Your task to perform on an android device: Show me popular games on the Play Store Image 0: 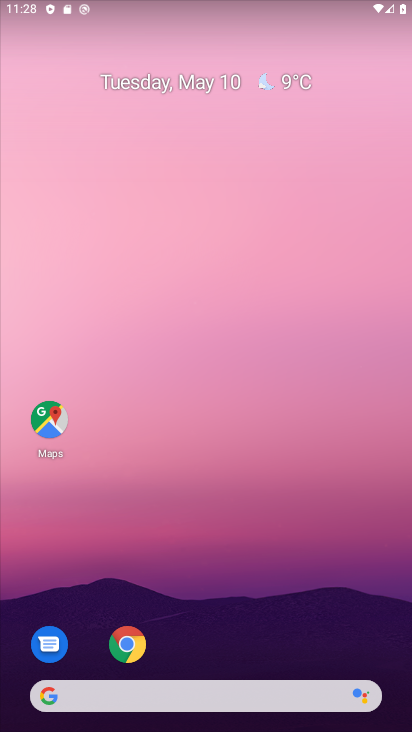
Step 0: drag from (191, 650) to (246, 135)
Your task to perform on an android device: Show me popular games on the Play Store Image 1: 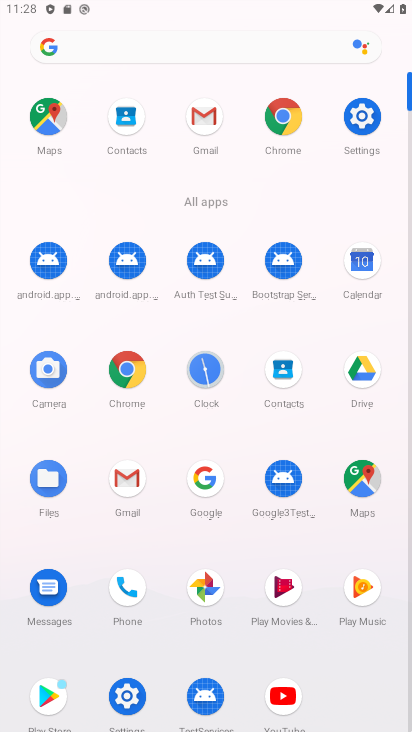
Step 1: click (46, 681)
Your task to perform on an android device: Show me popular games on the Play Store Image 2: 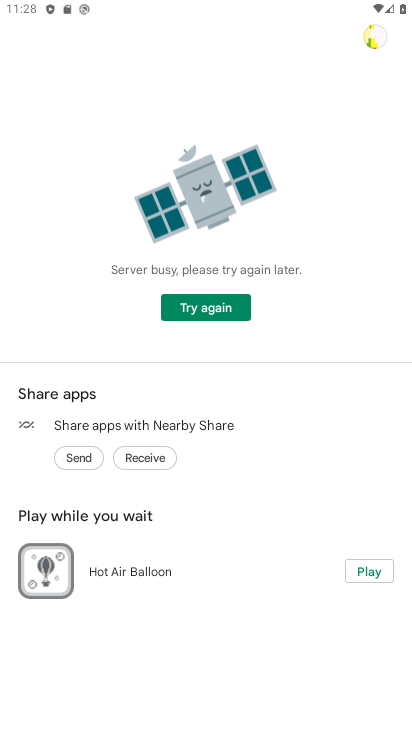
Step 2: click (201, 302)
Your task to perform on an android device: Show me popular games on the Play Store Image 3: 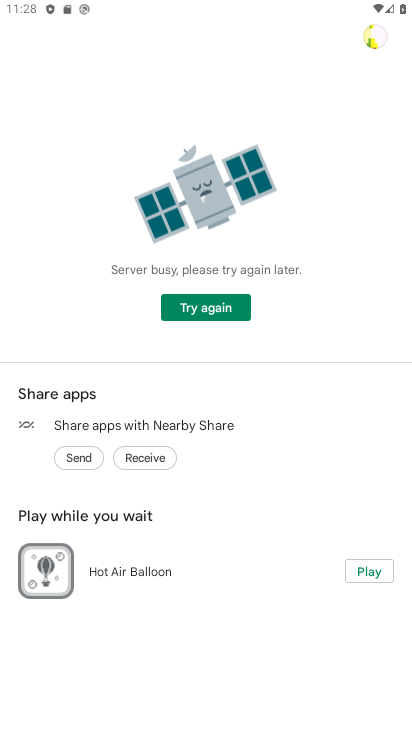
Step 3: click (201, 309)
Your task to perform on an android device: Show me popular games on the Play Store Image 4: 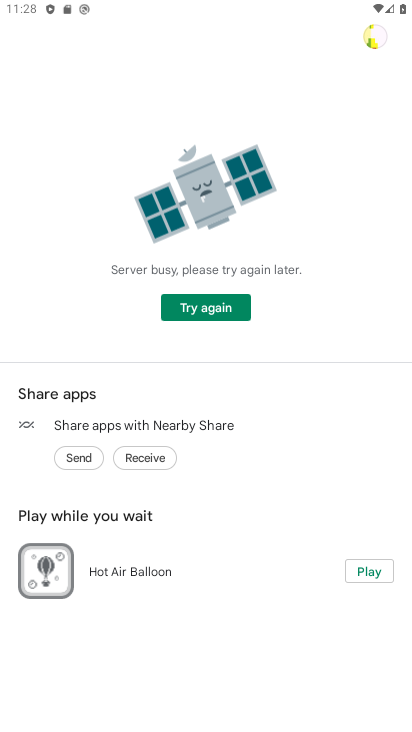
Step 4: task complete